Your task to perform on an android device: Open Yahoo.com Image 0: 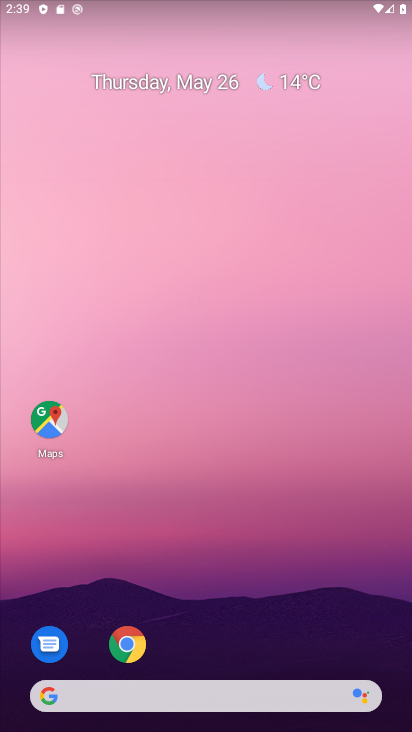
Step 0: drag from (358, 607) to (311, 180)
Your task to perform on an android device: Open Yahoo.com Image 1: 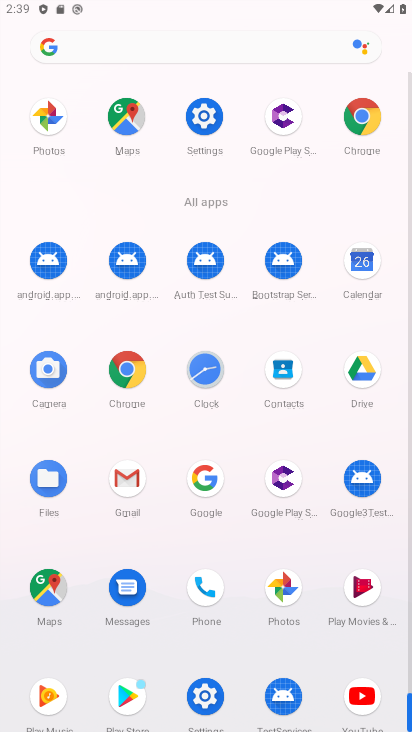
Step 1: click (355, 133)
Your task to perform on an android device: Open Yahoo.com Image 2: 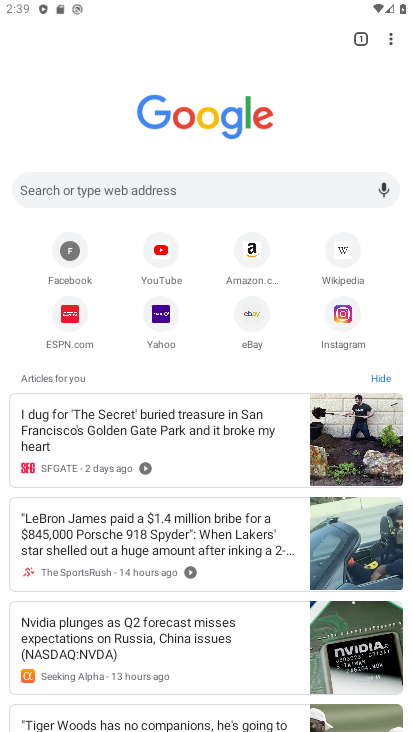
Step 2: click (176, 328)
Your task to perform on an android device: Open Yahoo.com Image 3: 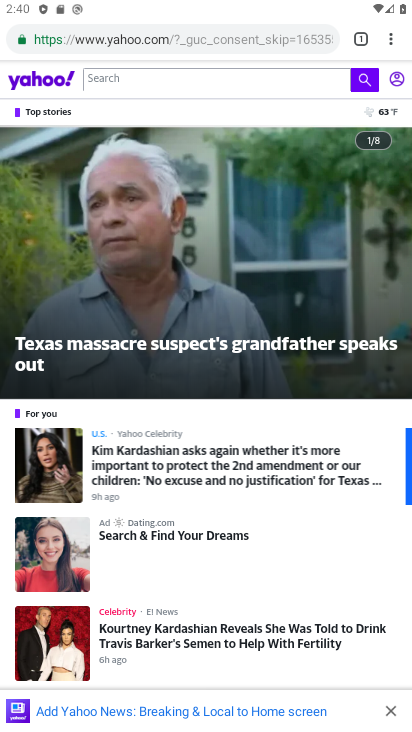
Step 3: task complete